Your task to perform on an android device: Install the Uber app Image 0: 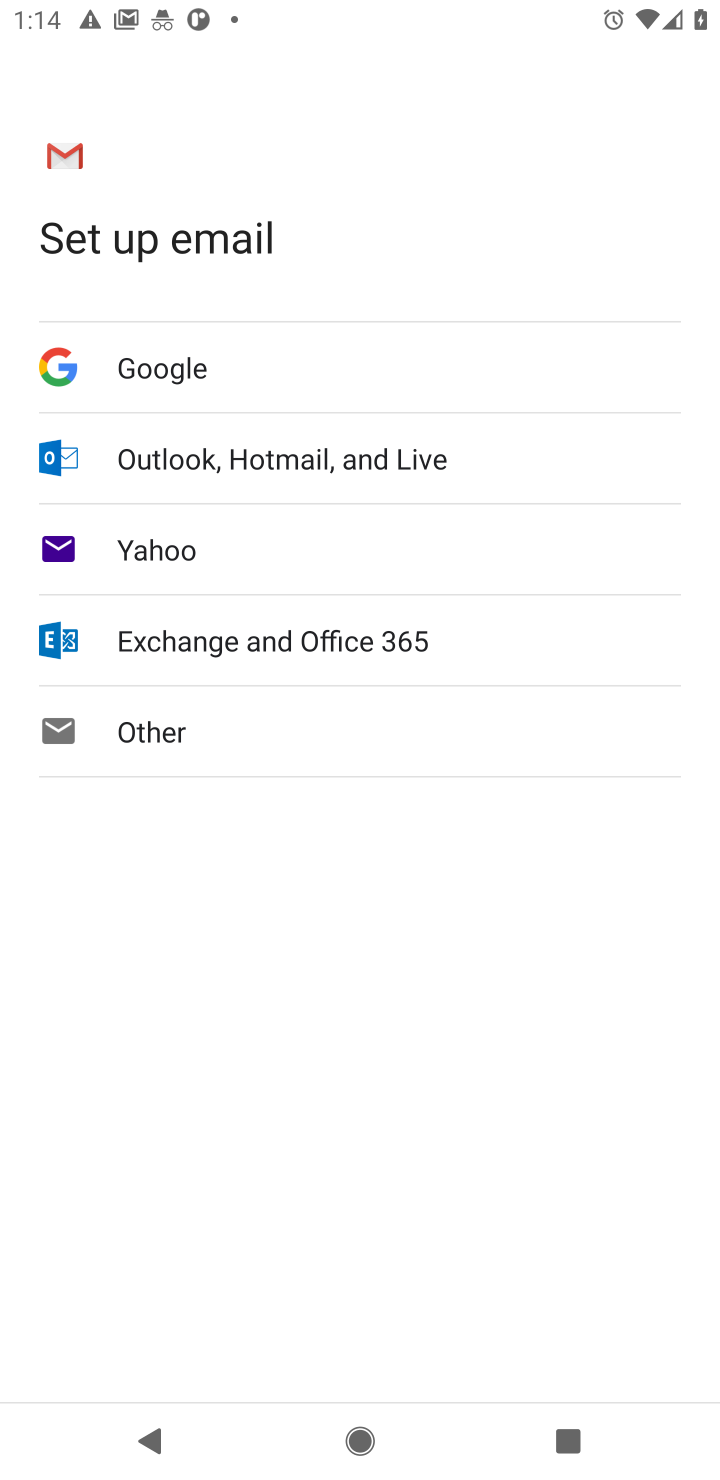
Step 0: press home button
Your task to perform on an android device: Install the Uber app Image 1: 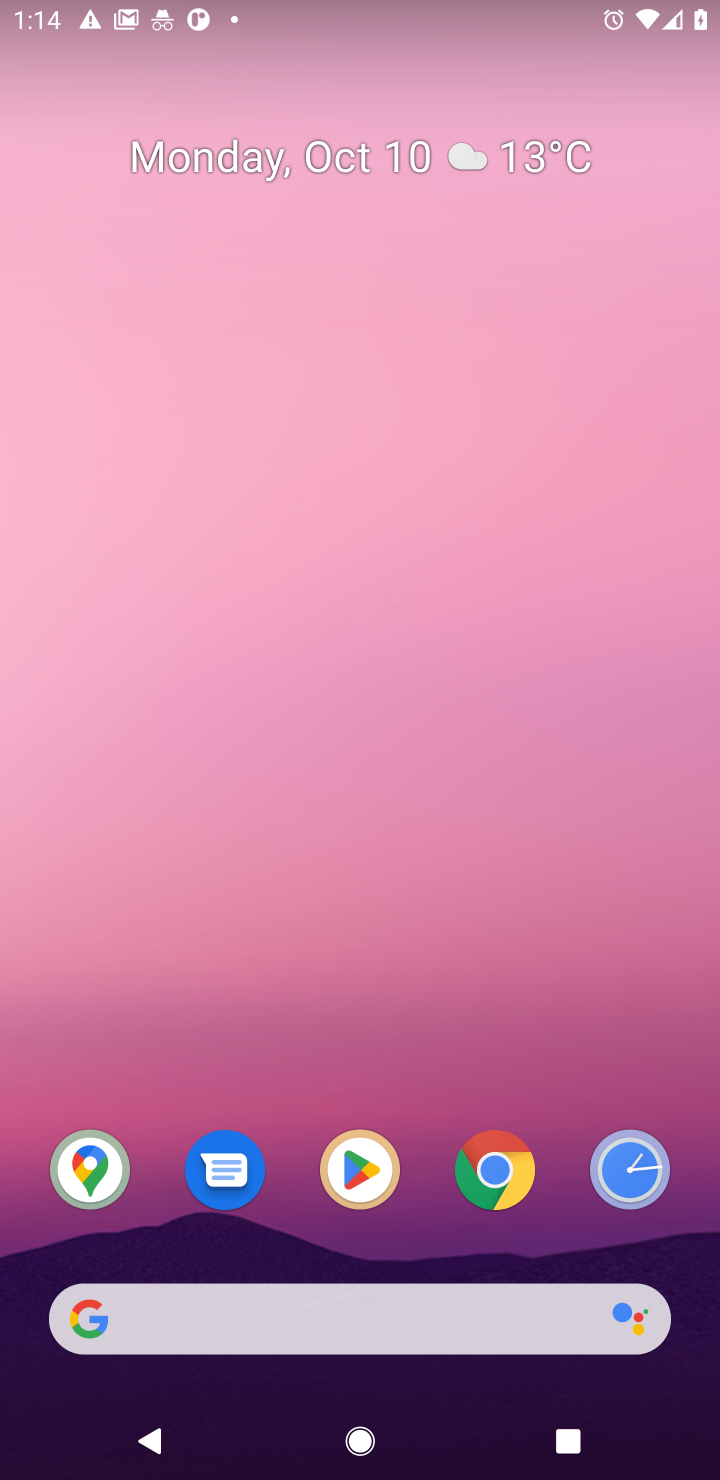
Step 1: click (370, 1162)
Your task to perform on an android device: Install the Uber app Image 2: 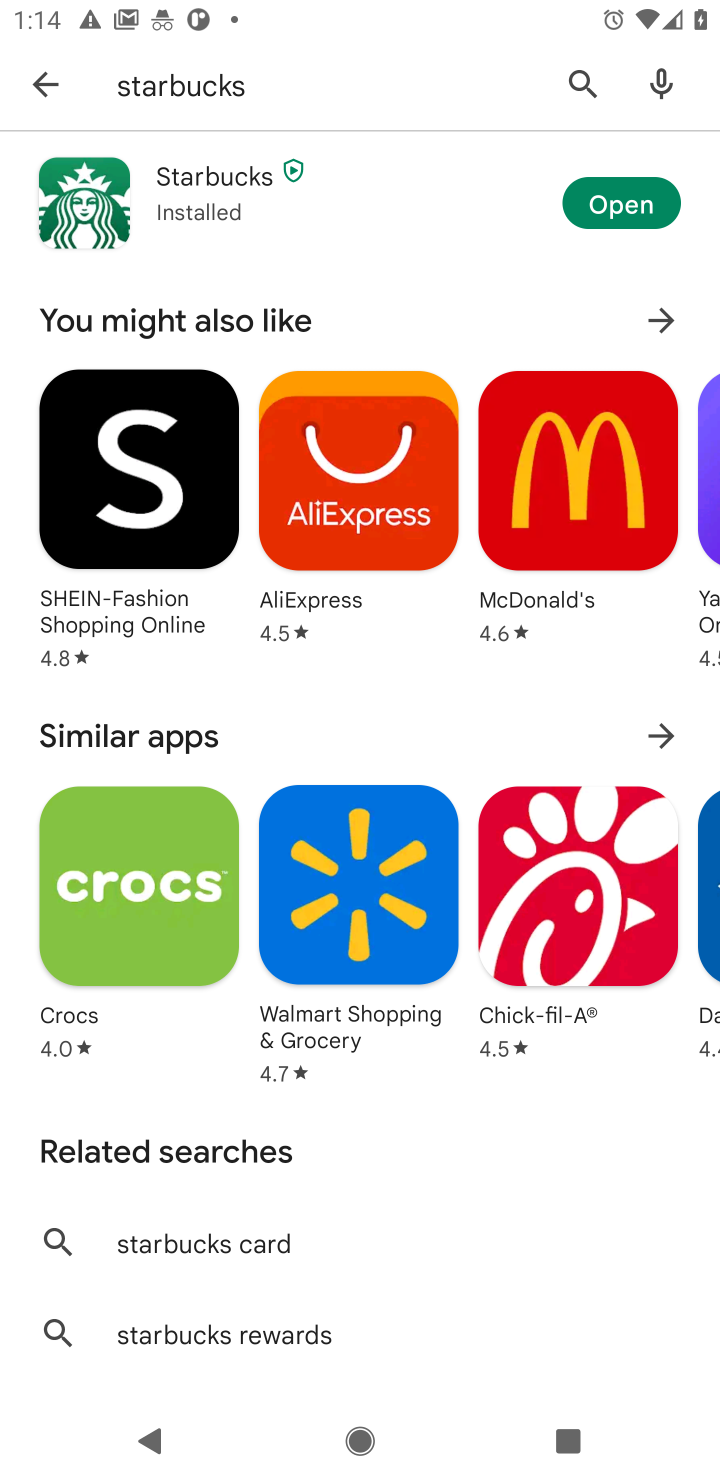
Step 2: click (578, 76)
Your task to perform on an android device: Install the Uber app Image 3: 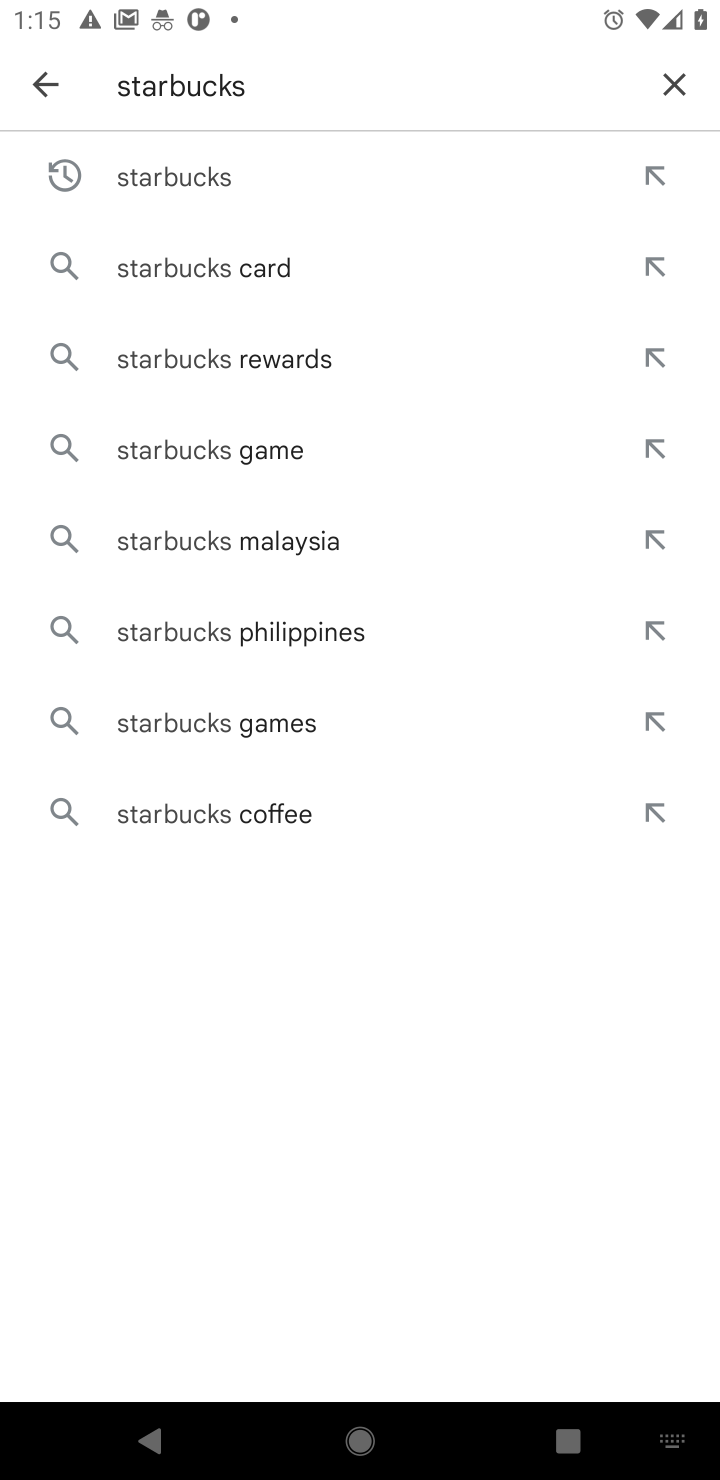
Step 3: click (681, 81)
Your task to perform on an android device: Install the Uber app Image 4: 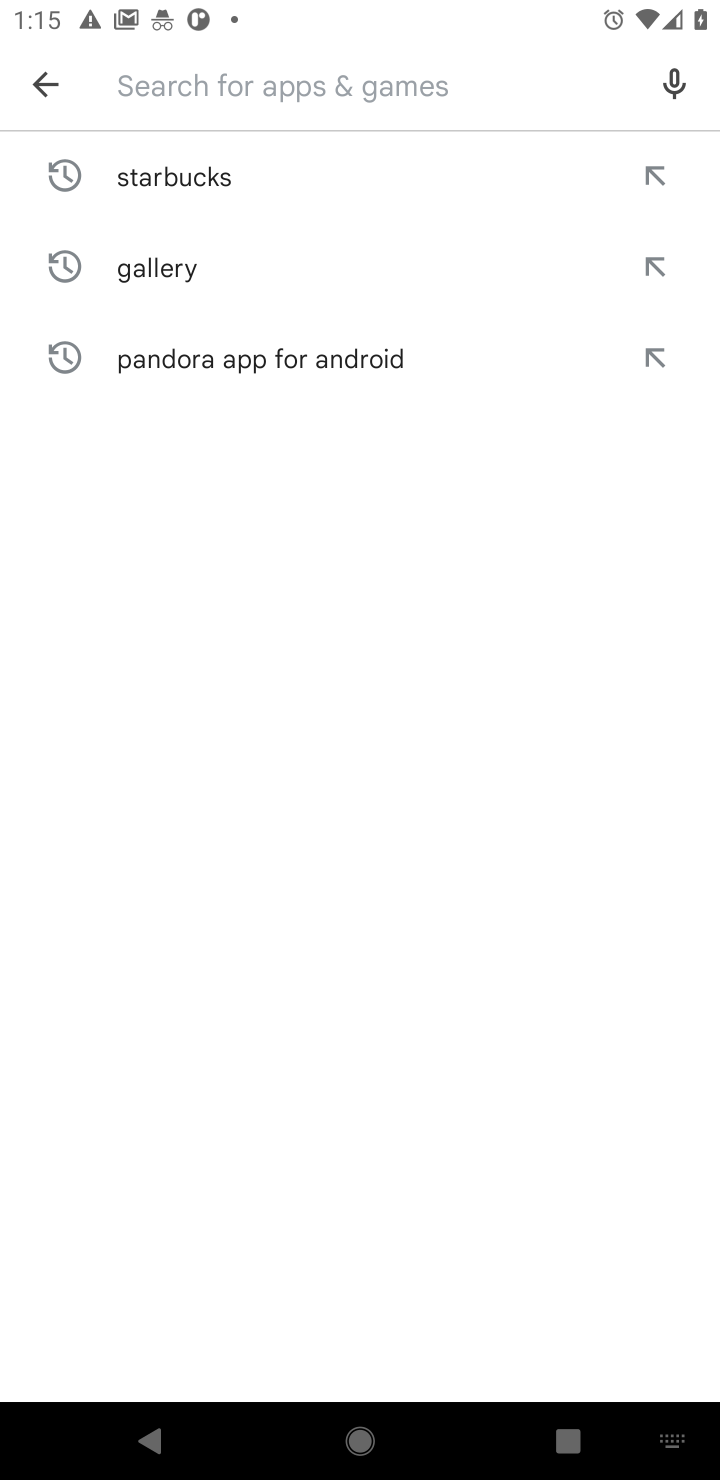
Step 4: type "uber app"
Your task to perform on an android device: Install the Uber app Image 5: 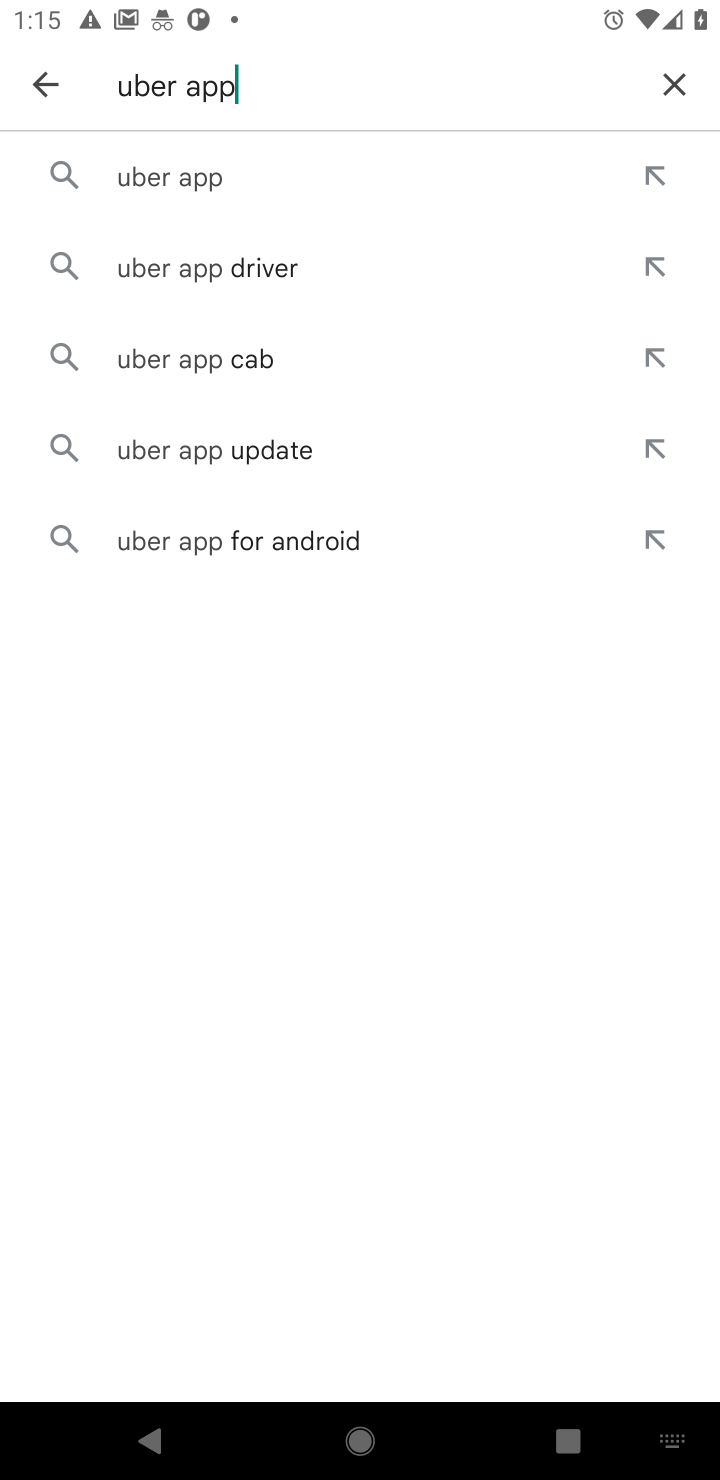
Step 5: click (213, 185)
Your task to perform on an android device: Install the Uber app Image 6: 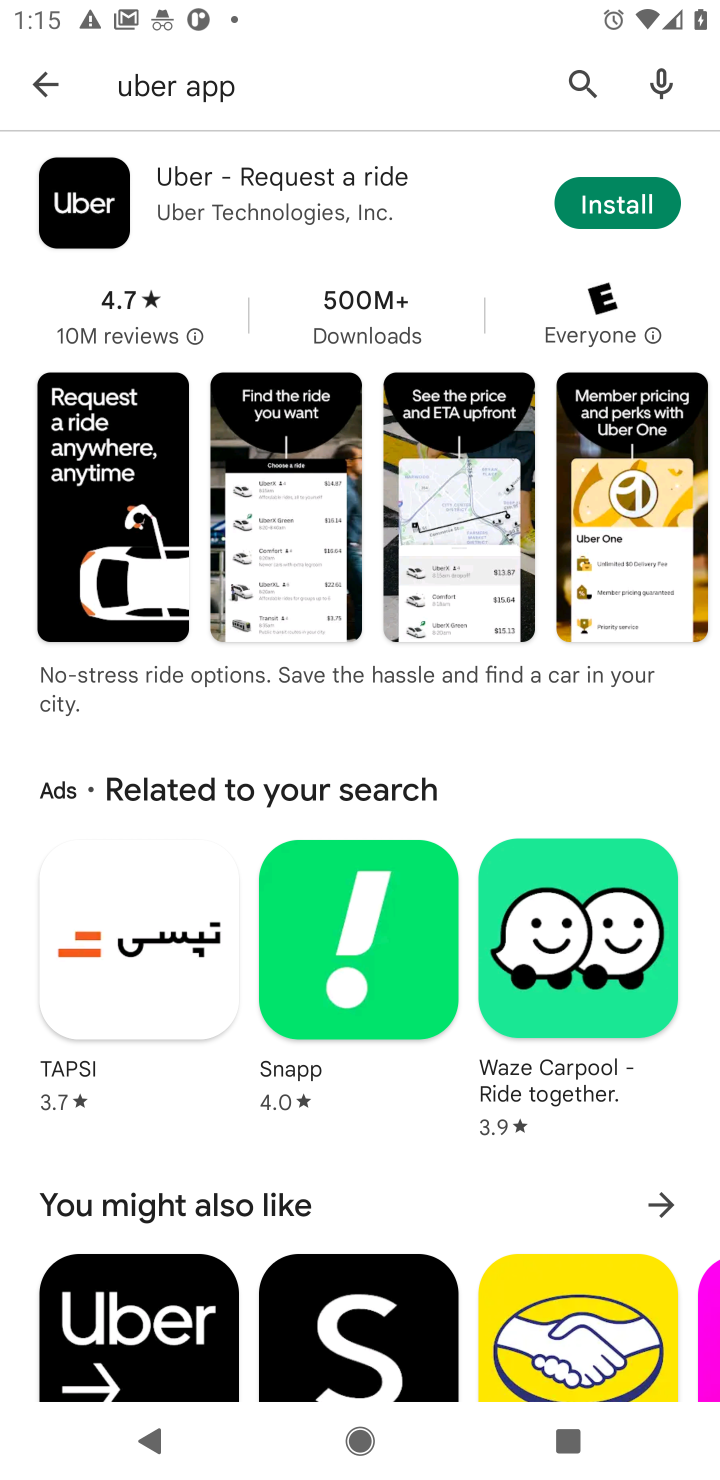
Step 6: click (605, 212)
Your task to perform on an android device: Install the Uber app Image 7: 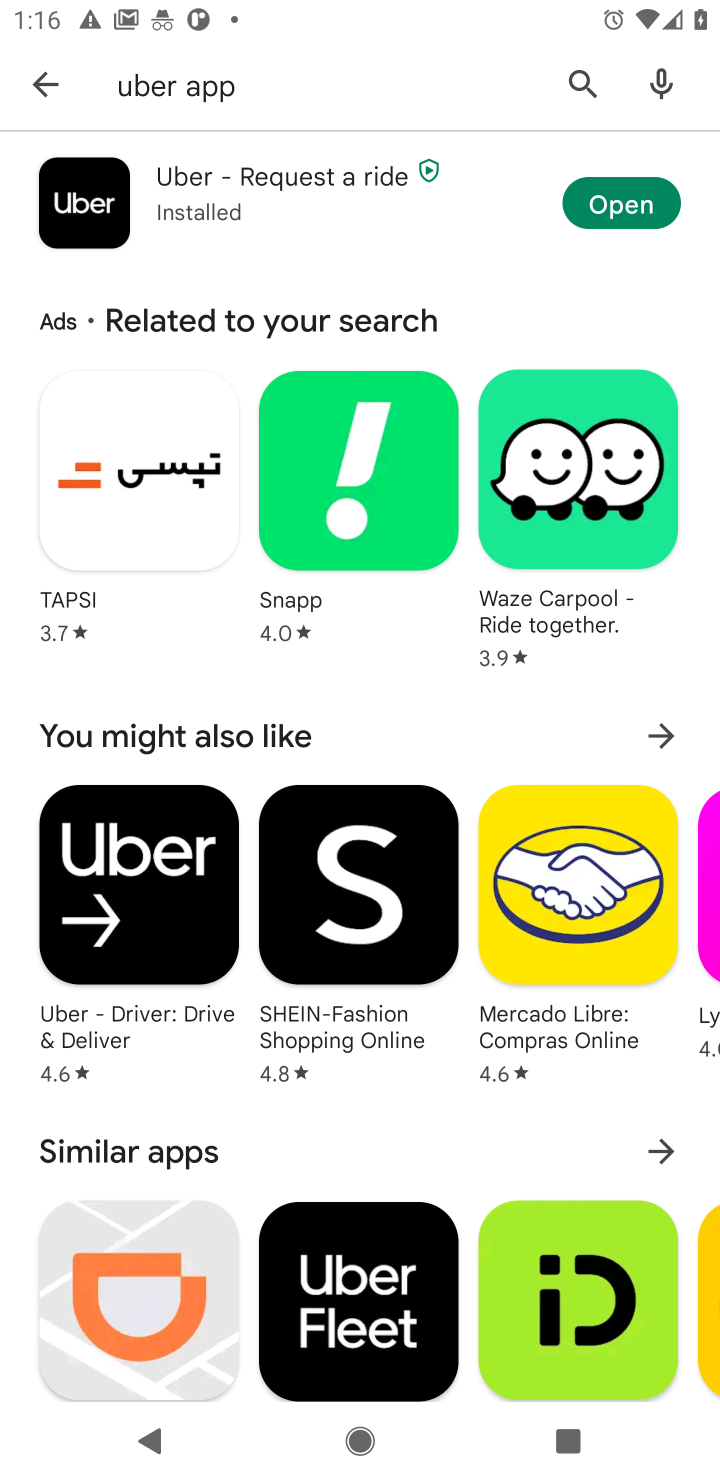
Step 7: click (605, 212)
Your task to perform on an android device: Install the Uber app Image 8: 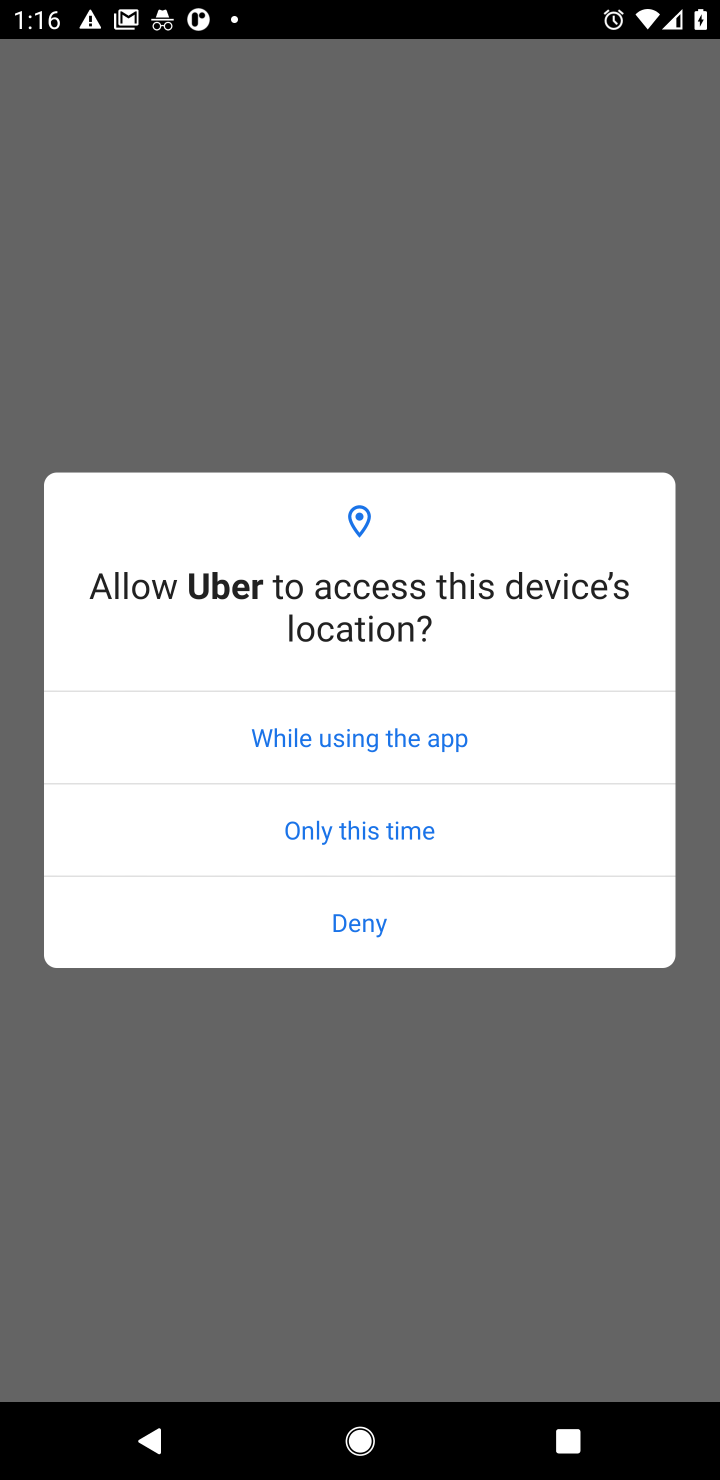
Step 8: click (370, 746)
Your task to perform on an android device: Install the Uber app Image 9: 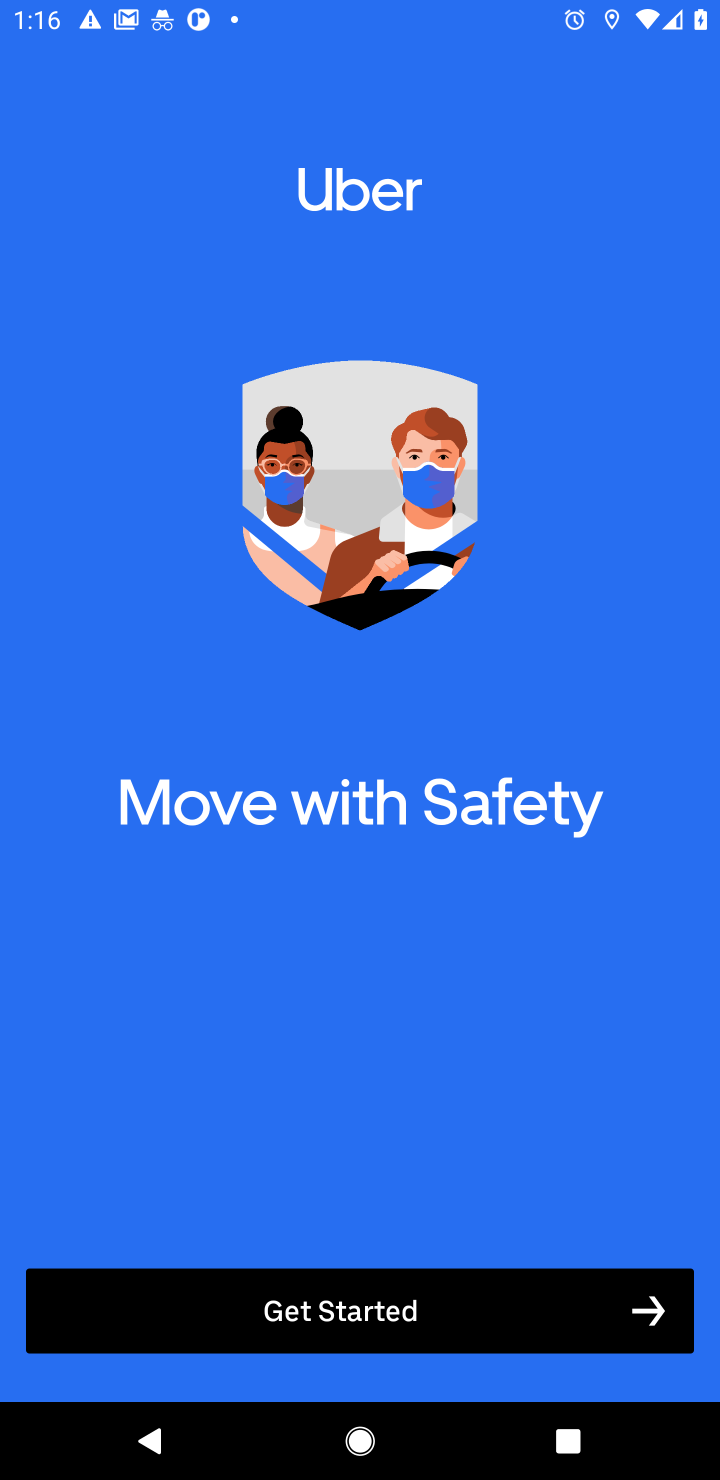
Step 9: task complete